Your task to perform on an android device: Toggle the flashlight Image 0: 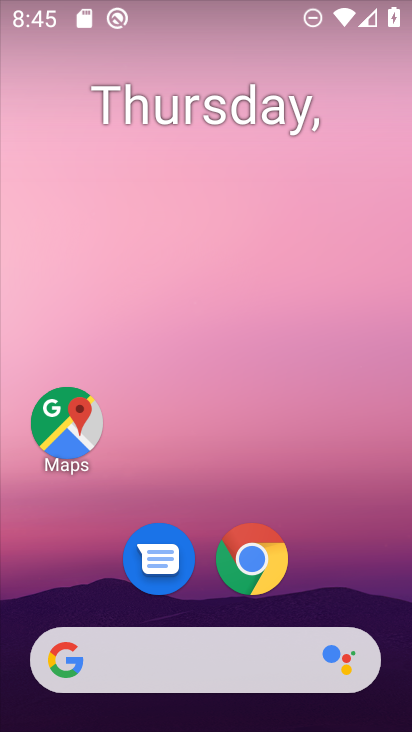
Step 0: drag from (309, 11) to (304, 616)
Your task to perform on an android device: Toggle the flashlight Image 1: 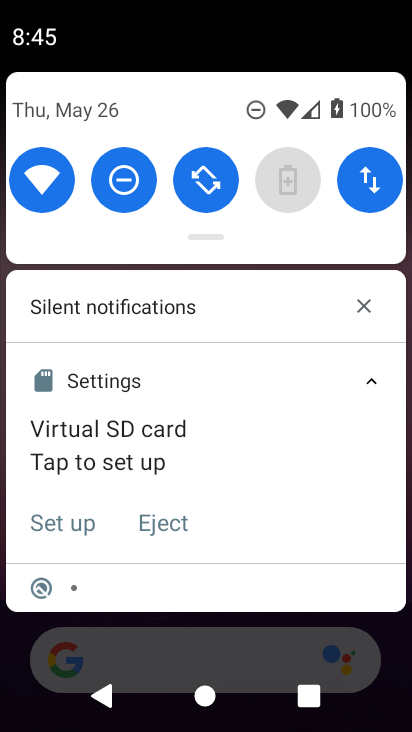
Step 1: task complete